Your task to perform on an android device: check out phone information Image 0: 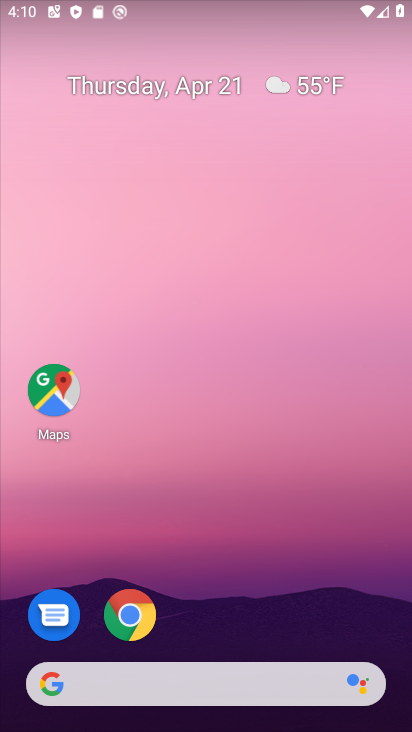
Step 0: drag from (201, 568) to (123, 31)
Your task to perform on an android device: check out phone information Image 1: 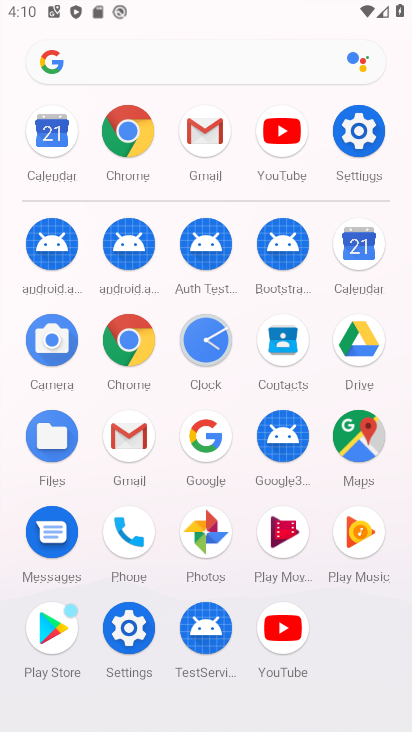
Step 1: click (125, 626)
Your task to perform on an android device: check out phone information Image 2: 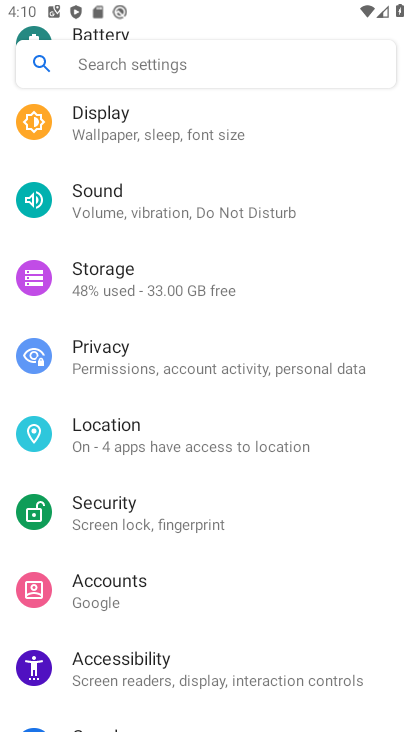
Step 2: drag from (293, 577) to (280, 170)
Your task to perform on an android device: check out phone information Image 3: 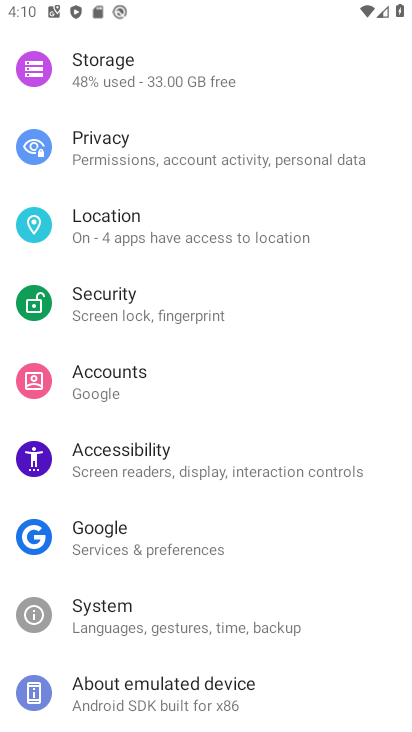
Step 3: drag from (263, 585) to (292, 165)
Your task to perform on an android device: check out phone information Image 4: 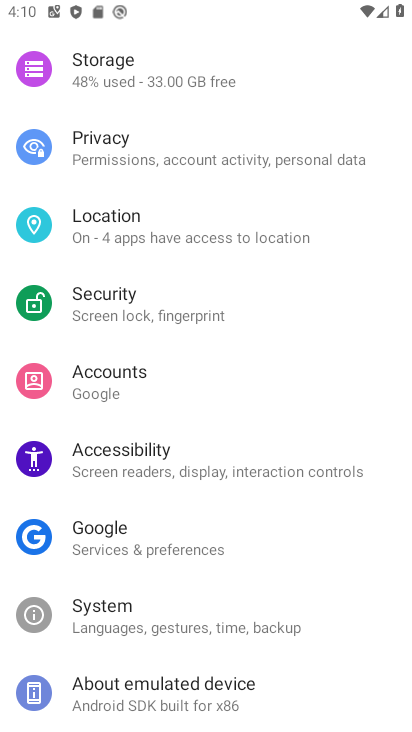
Step 4: drag from (272, 540) to (274, 231)
Your task to perform on an android device: check out phone information Image 5: 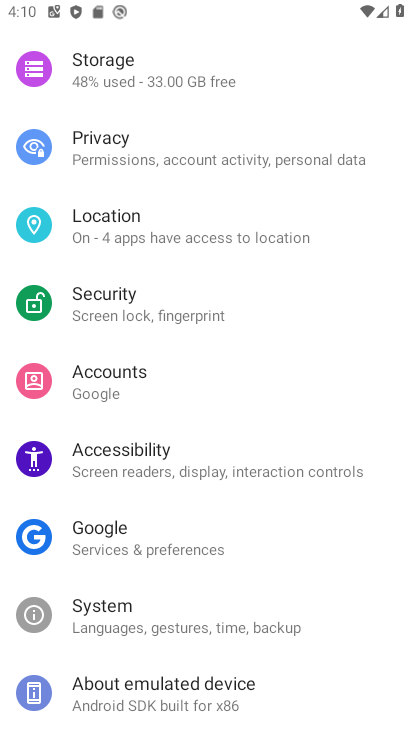
Step 5: click (150, 691)
Your task to perform on an android device: check out phone information Image 6: 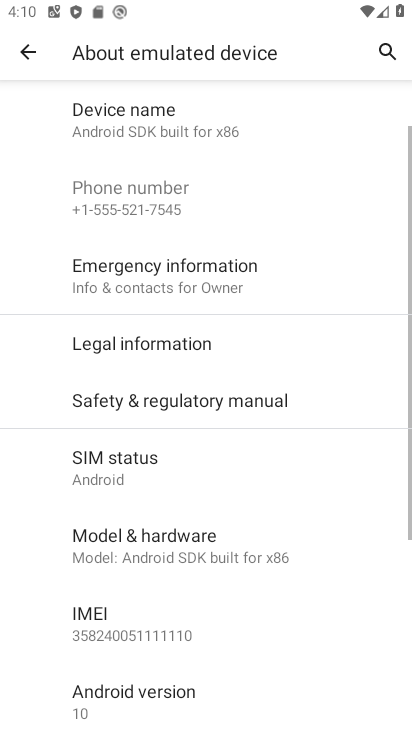
Step 6: task complete